Your task to perform on an android device: Search for seafood restaurants on Google Maps Image 0: 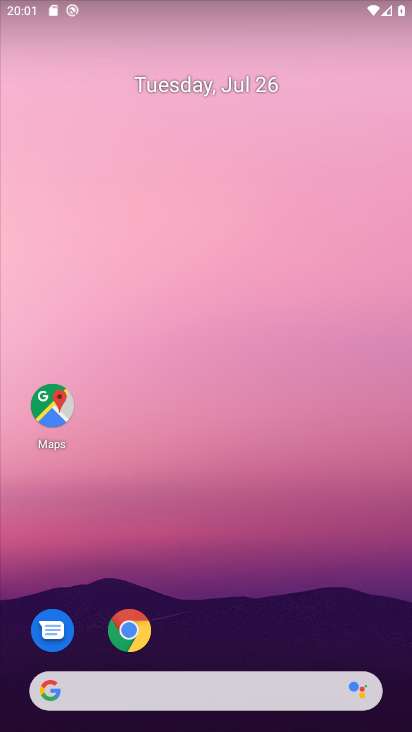
Step 0: click (48, 408)
Your task to perform on an android device: Search for seafood restaurants on Google Maps Image 1: 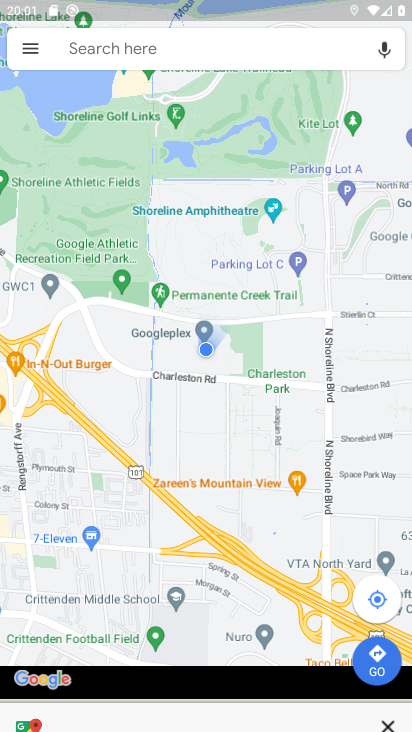
Step 1: click (179, 40)
Your task to perform on an android device: Search for seafood restaurants on Google Maps Image 2: 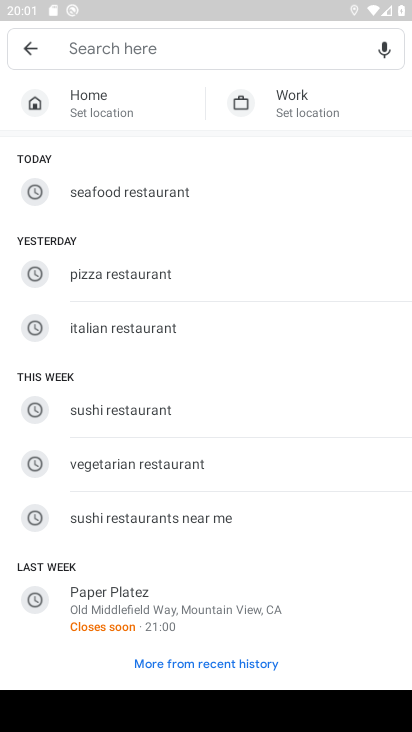
Step 2: type "seafood restaurants "
Your task to perform on an android device: Search for seafood restaurants on Google Maps Image 3: 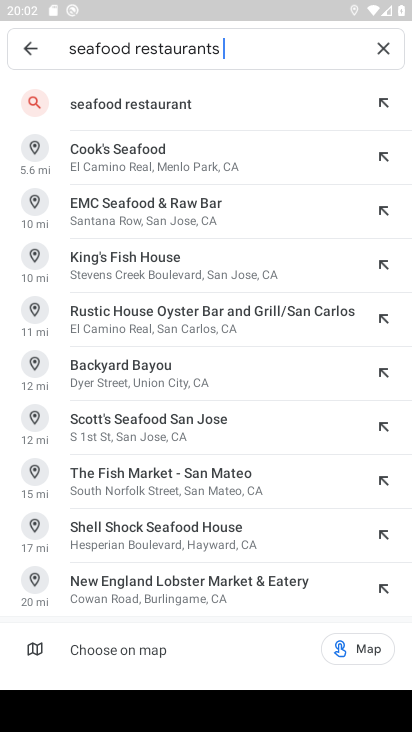
Step 3: click (182, 104)
Your task to perform on an android device: Search for seafood restaurants on Google Maps Image 4: 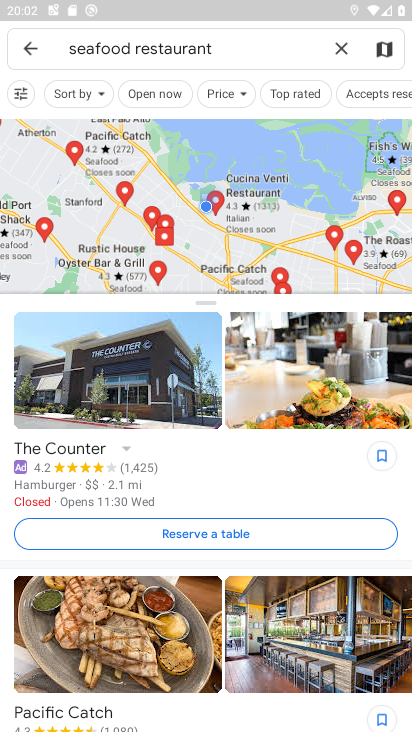
Step 4: task complete